Your task to perform on an android device: move a message to another label in the gmail app Image 0: 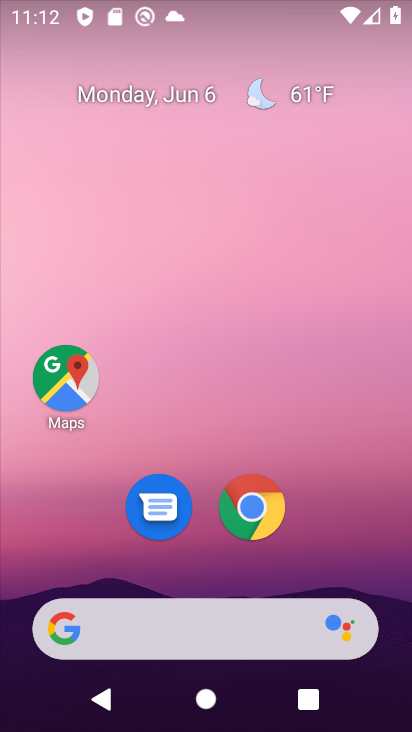
Step 0: drag from (209, 563) to (178, 88)
Your task to perform on an android device: move a message to another label in the gmail app Image 1: 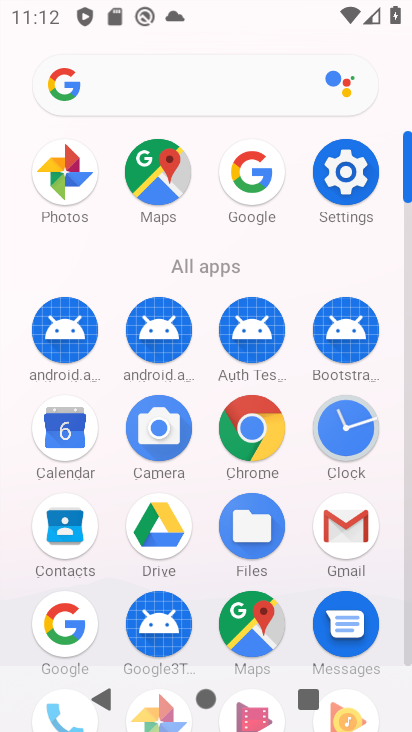
Step 1: click (347, 529)
Your task to perform on an android device: move a message to another label in the gmail app Image 2: 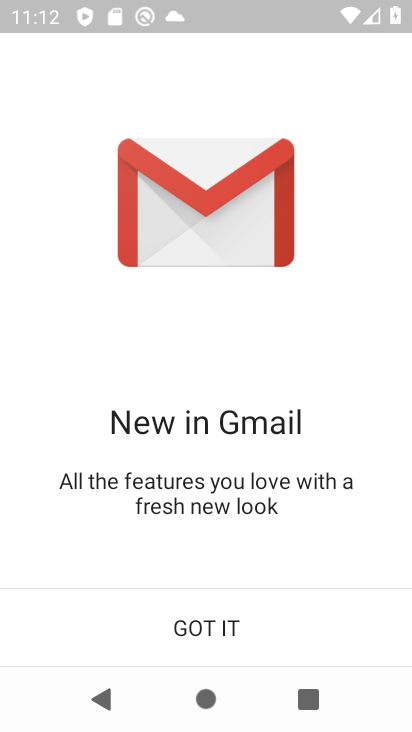
Step 2: click (194, 635)
Your task to perform on an android device: move a message to another label in the gmail app Image 3: 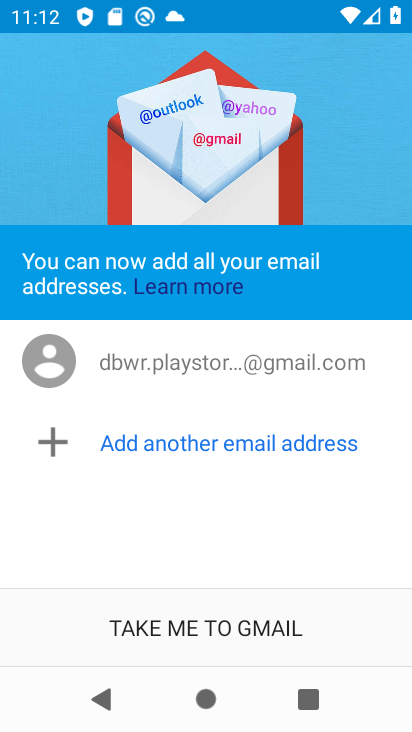
Step 3: click (151, 603)
Your task to perform on an android device: move a message to another label in the gmail app Image 4: 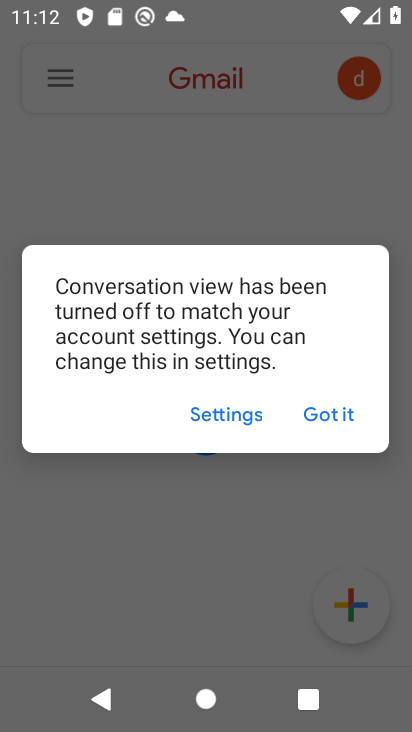
Step 4: click (328, 423)
Your task to perform on an android device: move a message to another label in the gmail app Image 5: 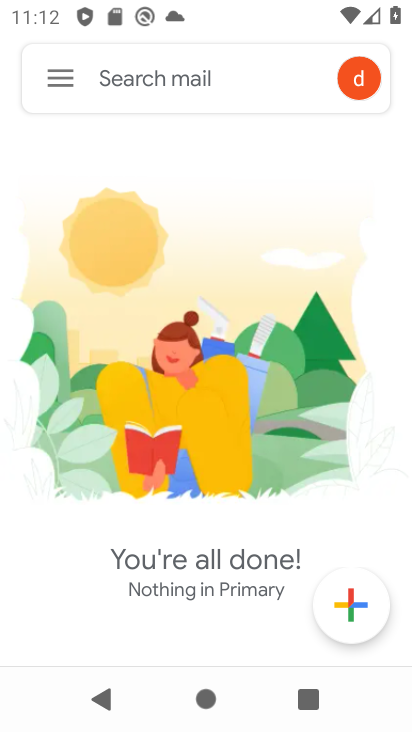
Step 5: task complete